Your task to perform on an android device: change the clock display to show seconds Image 0: 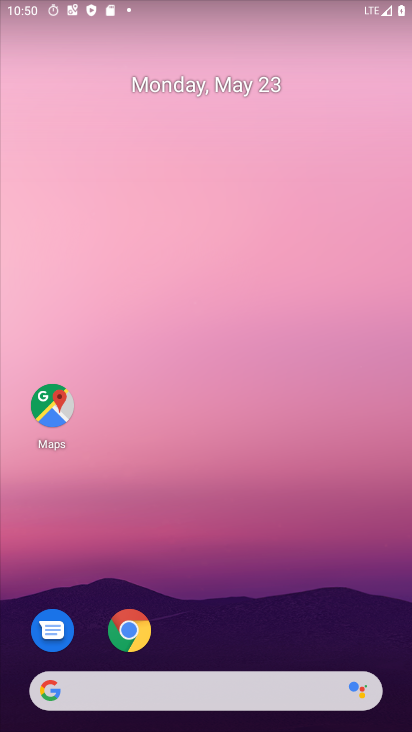
Step 0: drag from (238, 651) to (260, 8)
Your task to perform on an android device: change the clock display to show seconds Image 1: 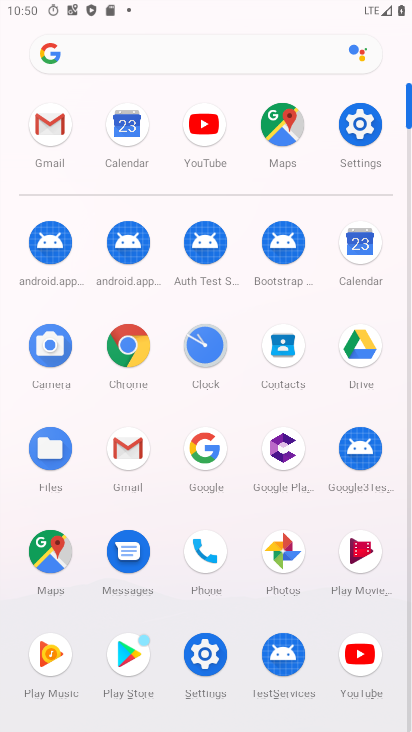
Step 1: click (209, 354)
Your task to perform on an android device: change the clock display to show seconds Image 2: 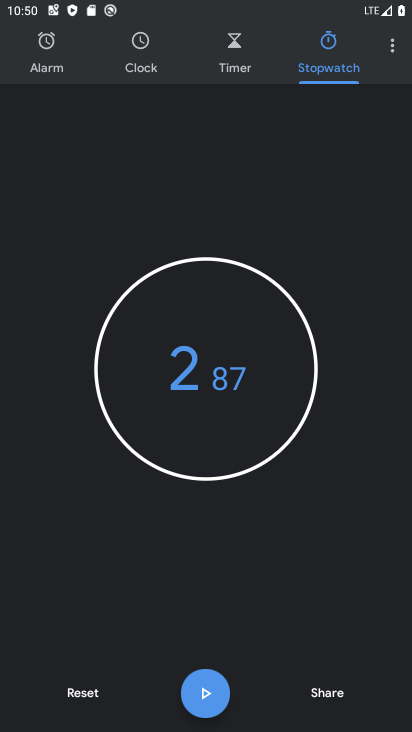
Step 2: click (399, 50)
Your task to perform on an android device: change the clock display to show seconds Image 3: 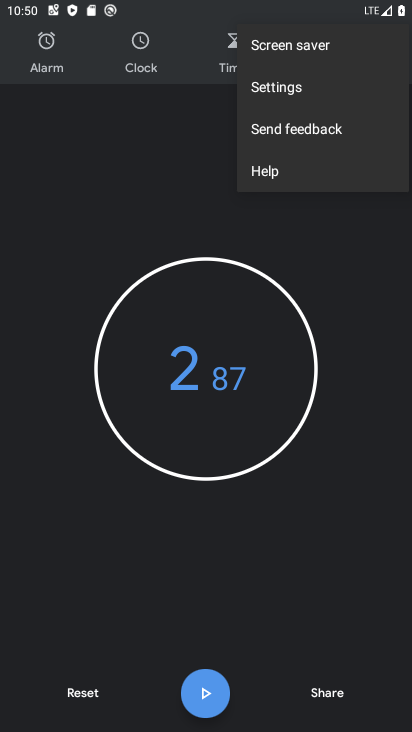
Step 3: click (284, 91)
Your task to perform on an android device: change the clock display to show seconds Image 4: 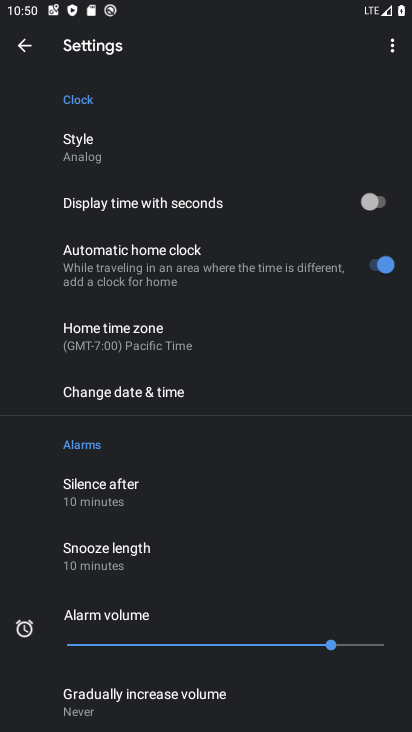
Step 4: click (367, 201)
Your task to perform on an android device: change the clock display to show seconds Image 5: 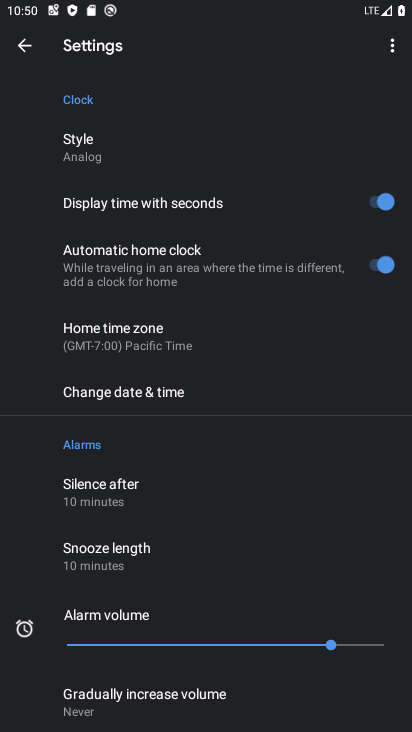
Step 5: task complete